Your task to perform on an android device: change timer sound Image 0: 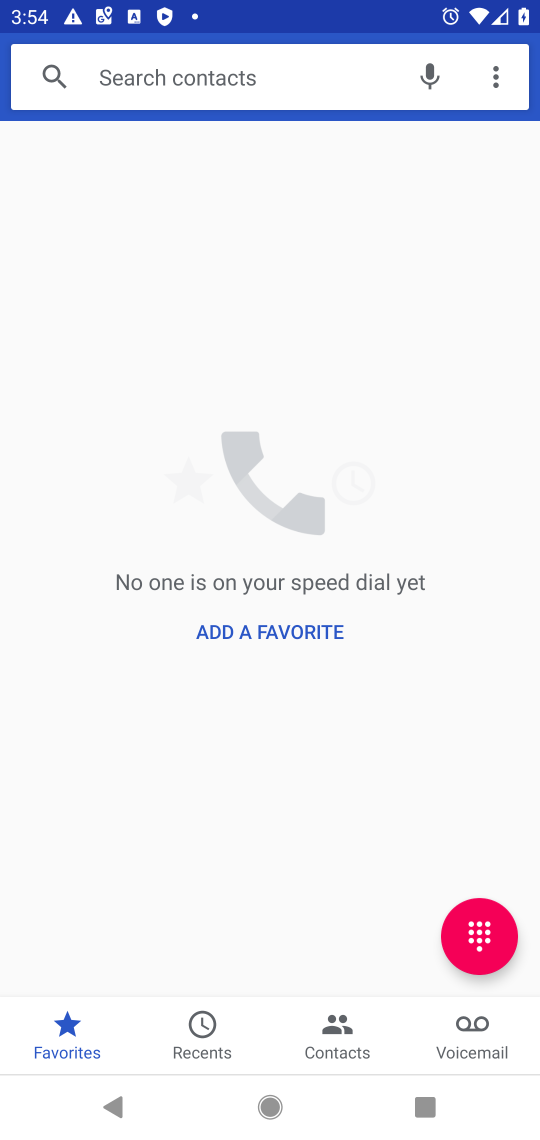
Step 0: press home button
Your task to perform on an android device: change timer sound Image 1: 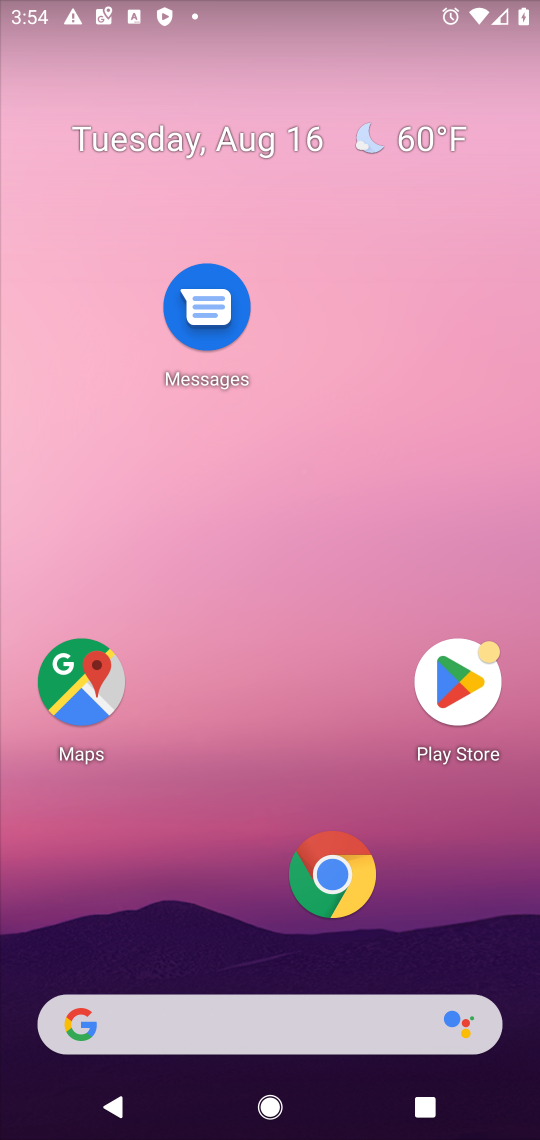
Step 1: drag from (253, 496) to (253, 120)
Your task to perform on an android device: change timer sound Image 2: 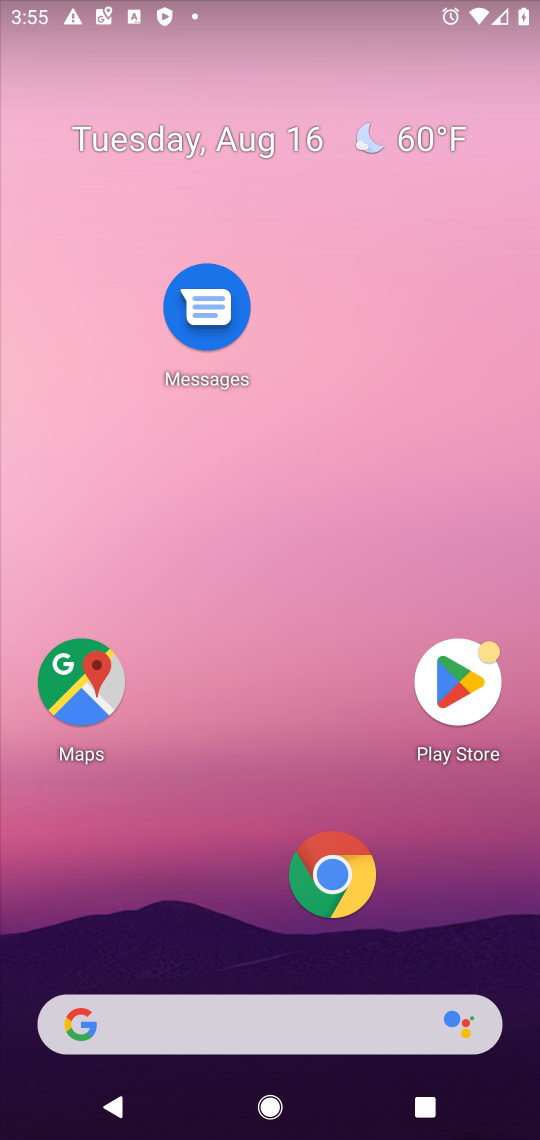
Step 2: drag from (224, 695) to (181, 129)
Your task to perform on an android device: change timer sound Image 3: 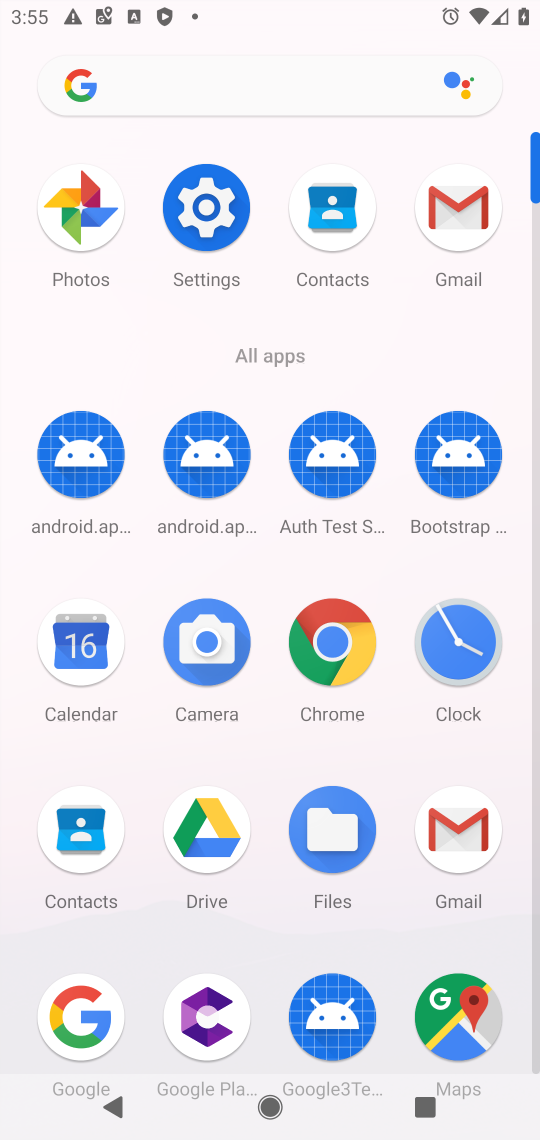
Step 3: click (465, 648)
Your task to perform on an android device: change timer sound Image 4: 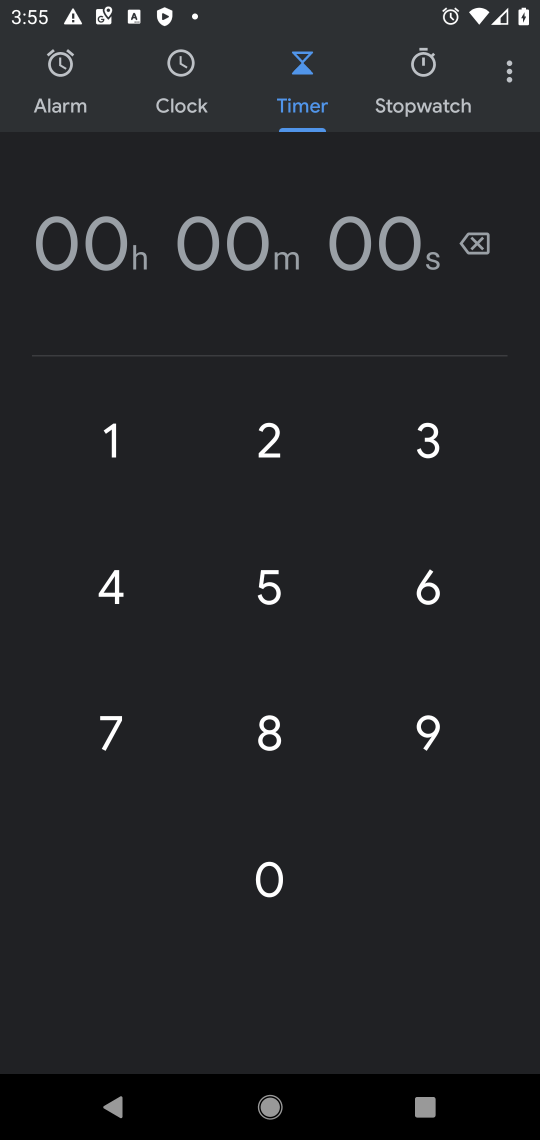
Step 4: click (512, 68)
Your task to perform on an android device: change timer sound Image 5: 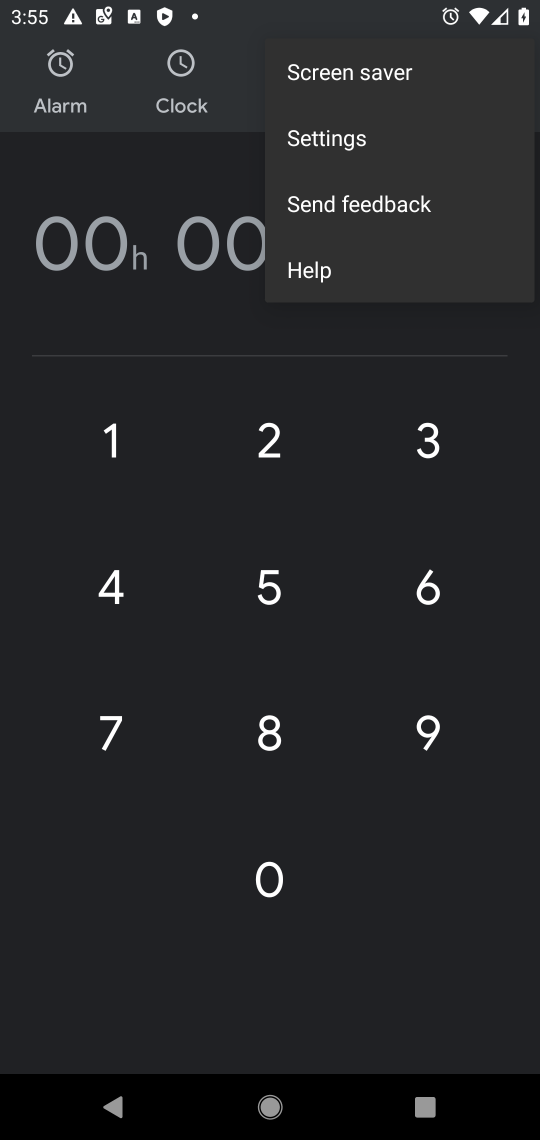
Step 5: click (328, 126)
Your task to perform on an android device: change timer sound Image 6: 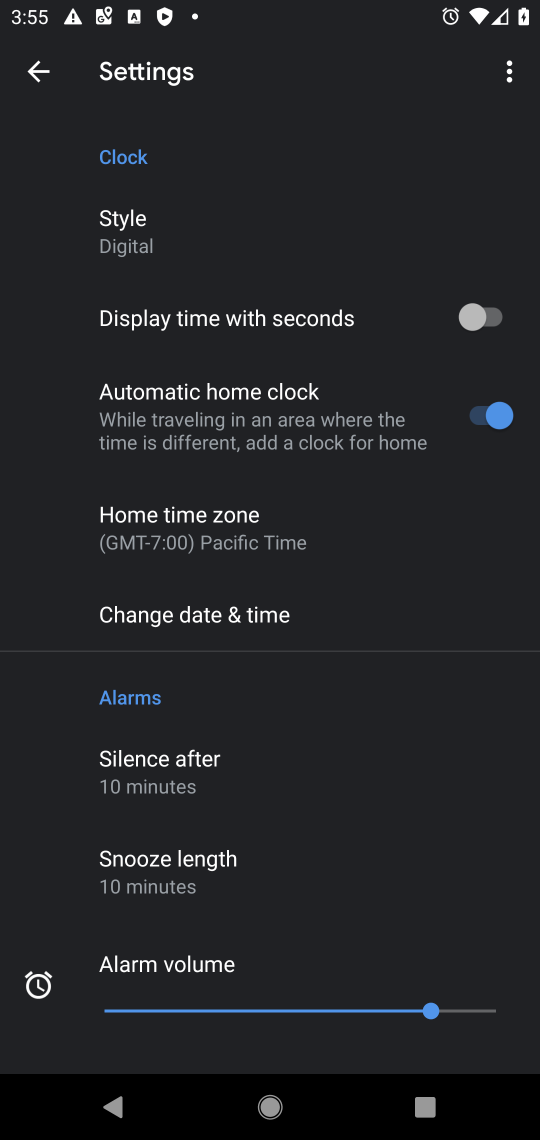
Step 6: drag from (328, 817) to (285, 461)
Your task to perform on an android device: change timer sound Image 7: 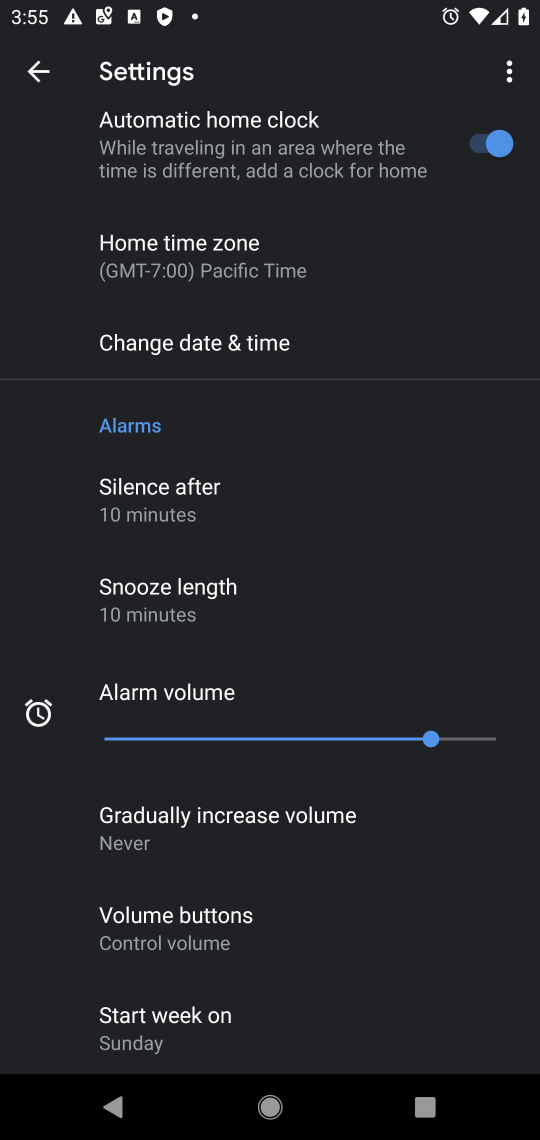
Step 7: drag from (320, 983) to (290, 401)
Your task to perform on an android device: change timer sound Image 8: 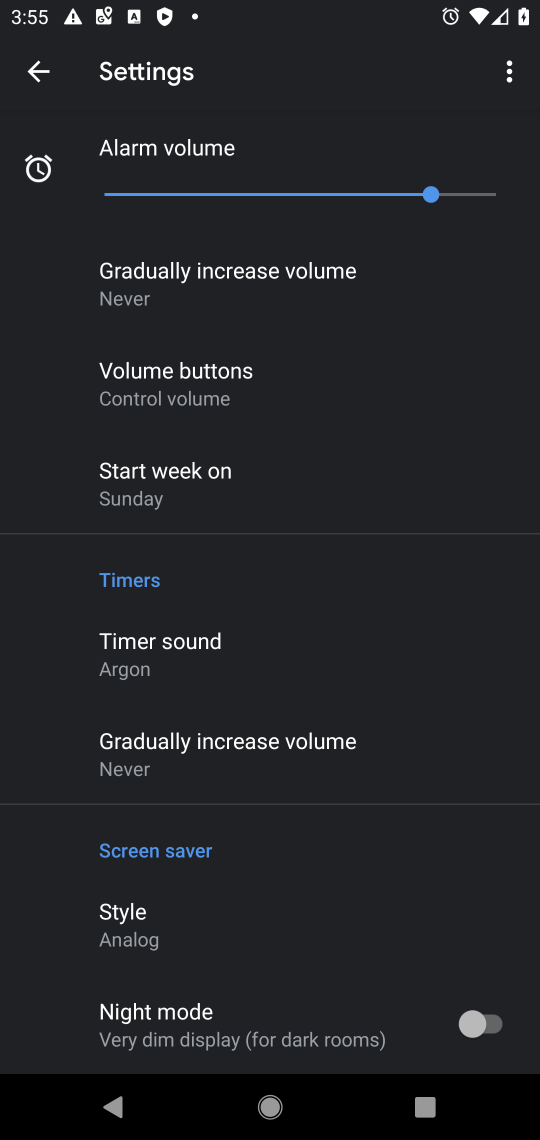
Step 8: click (118, 644)
Your task to perform on an android device: change timer sound Image 9: 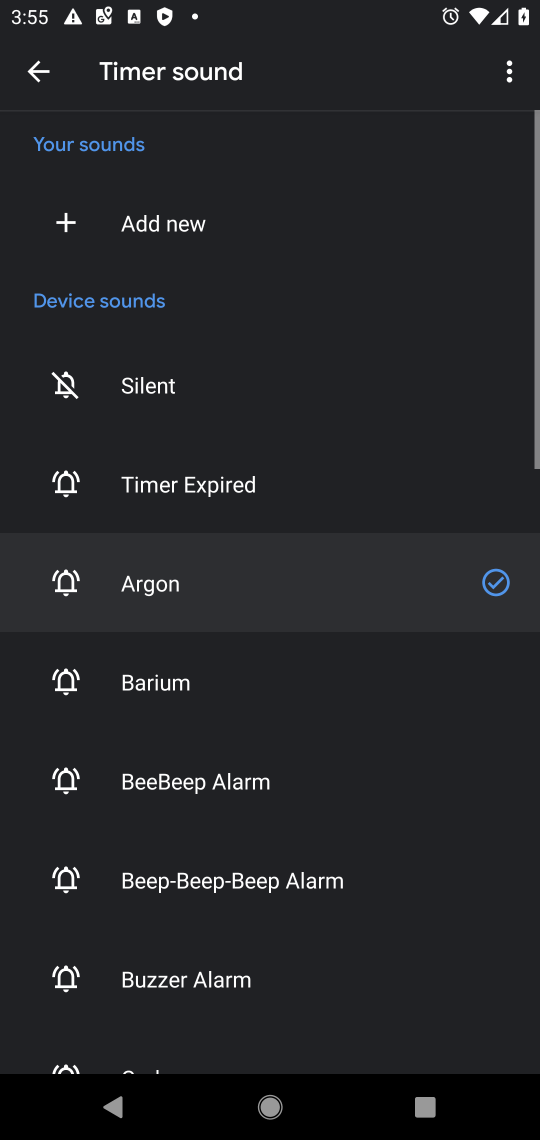
Step 9: click (184, 489)
Your task to perform on an android device: change timer sound Image 10: 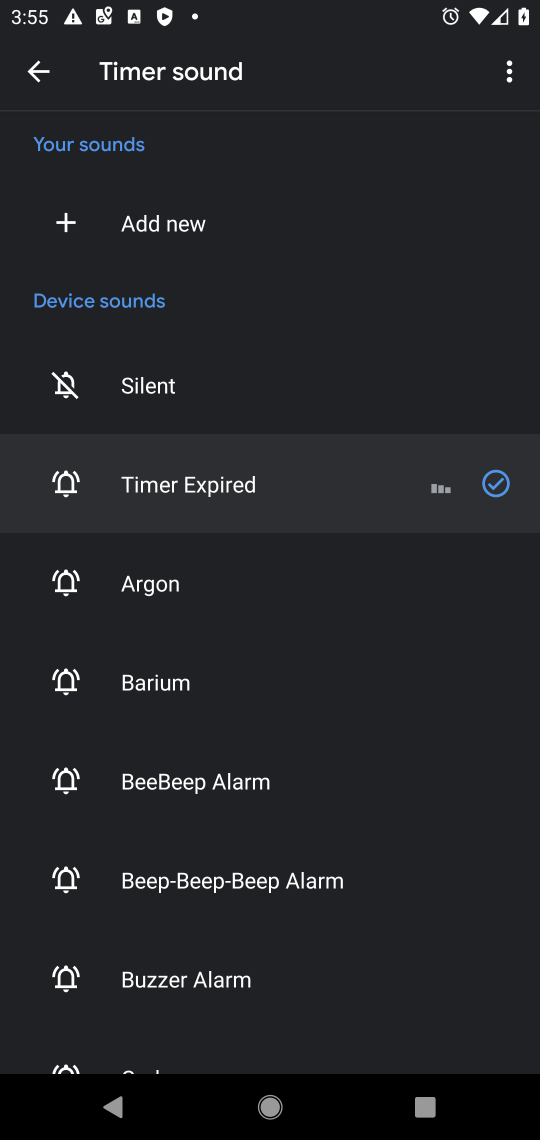
Step 10: task complete